Your task to perform on an android device: change the clock style Image 0: 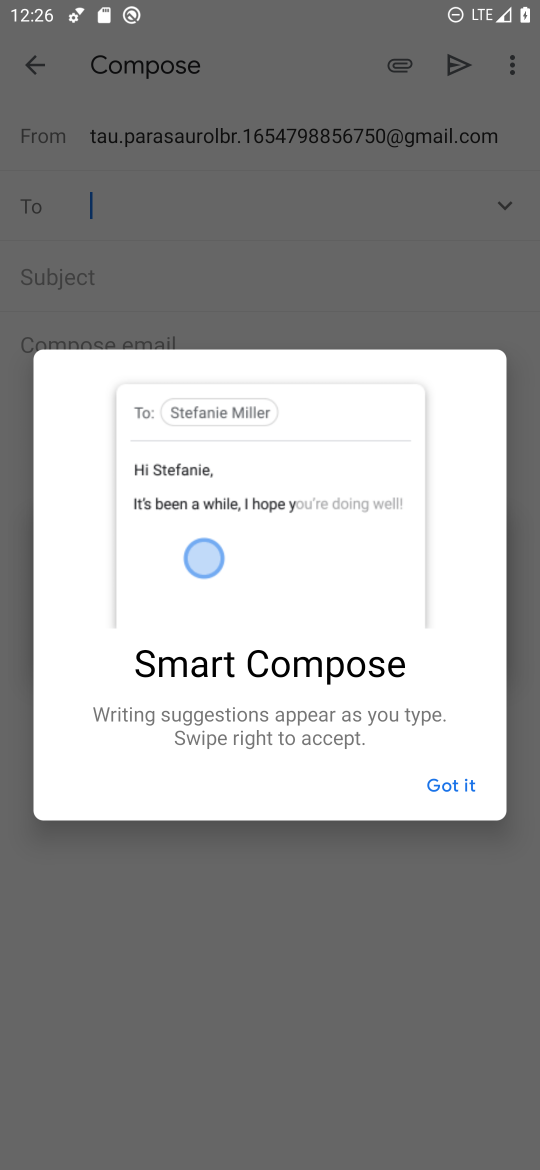
Step 0: press home button
Your task to perform on an android device: change the clock style Image 1: 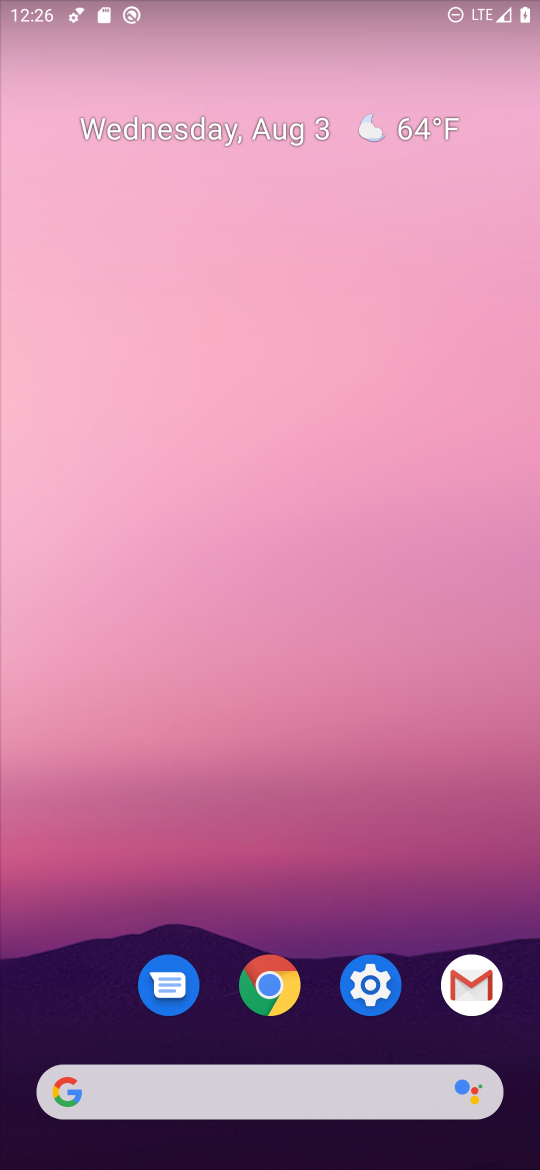
Step 1: drag from (374, 1123) to (245, 235)
Your task to perform on an android device: change the clock style Image 2: 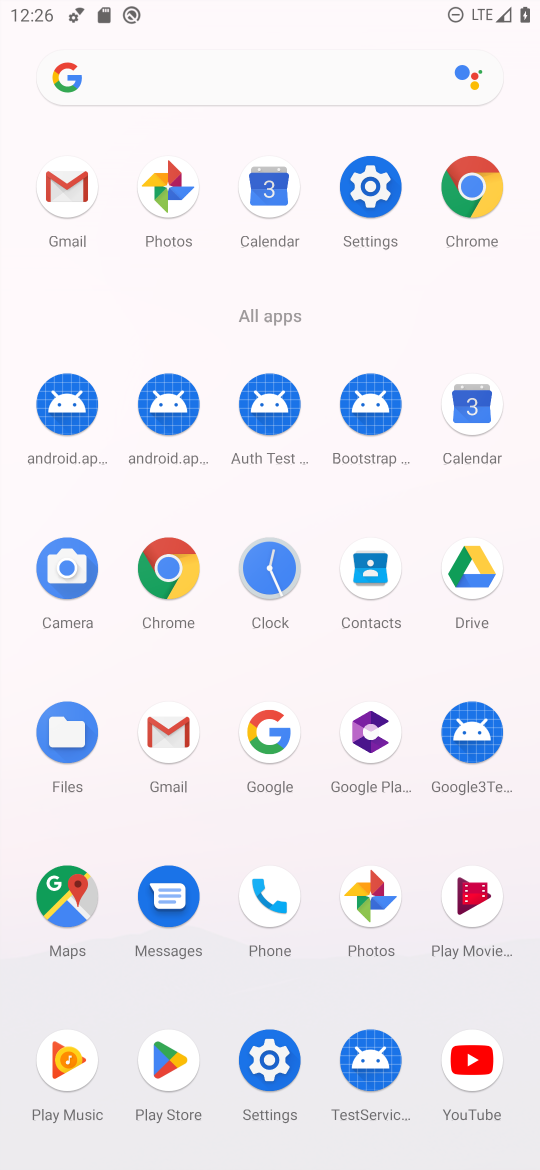
Step 2: click (243, 559)
Your task to perform on an android device: change the clock style Image 3: 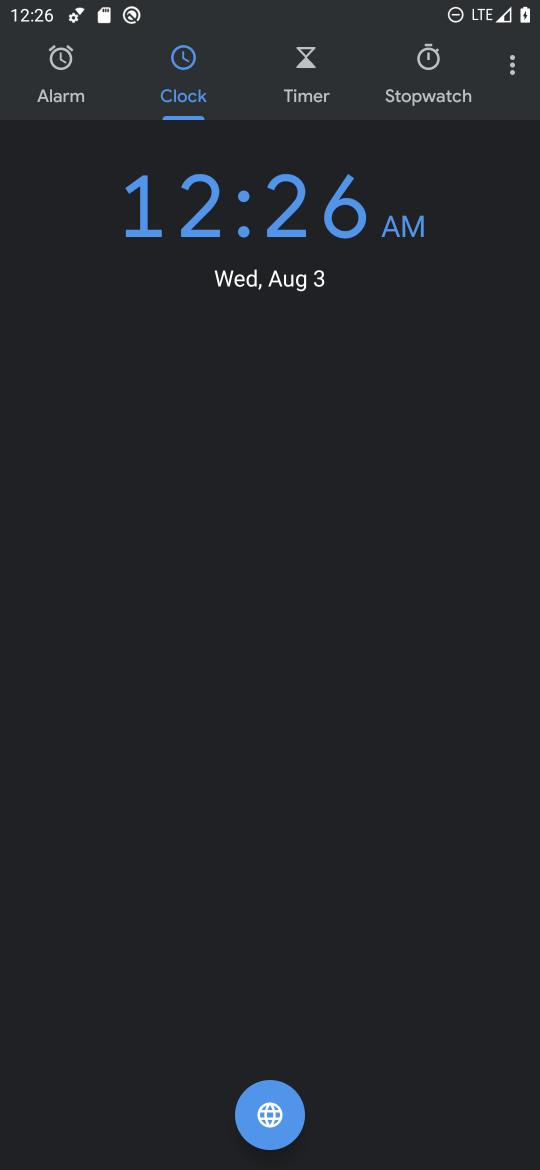
Step 3: click (502, 72)
Your task to perform on an android device: change the clock style Image 4: 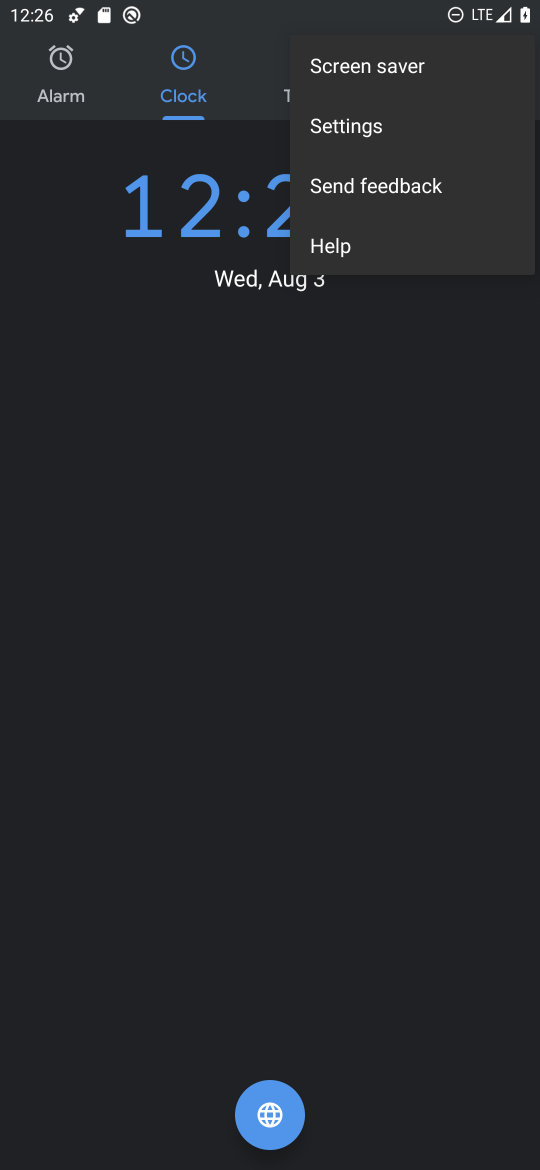
Step 4: click (364, 141)
Your task to perform on an android device: change the clock style Image 5: 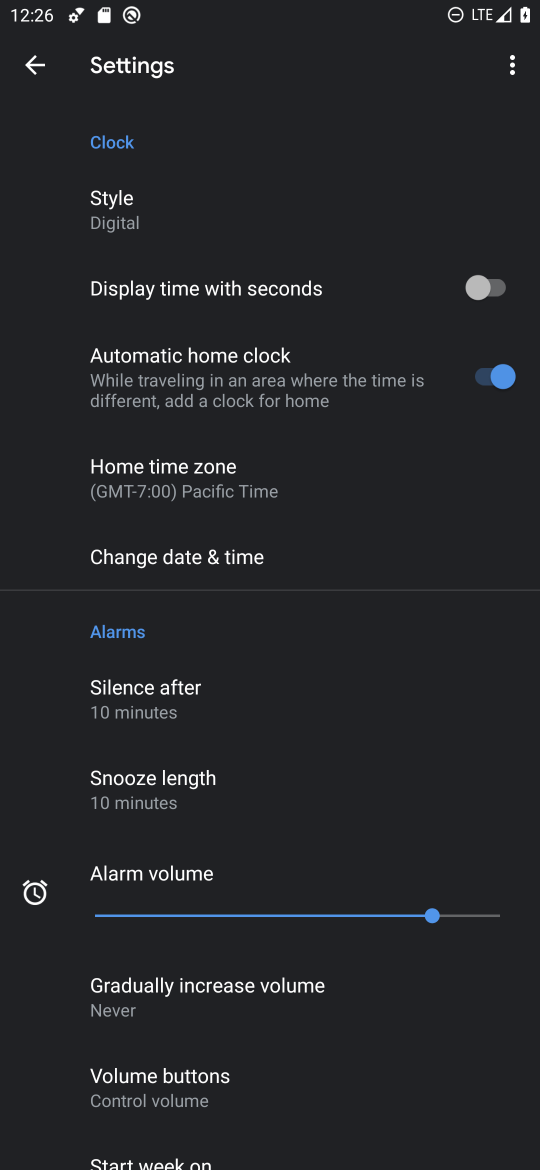
Step 5: click (146, 215)
Your task to perform on an android device: change the clock style Image 6: 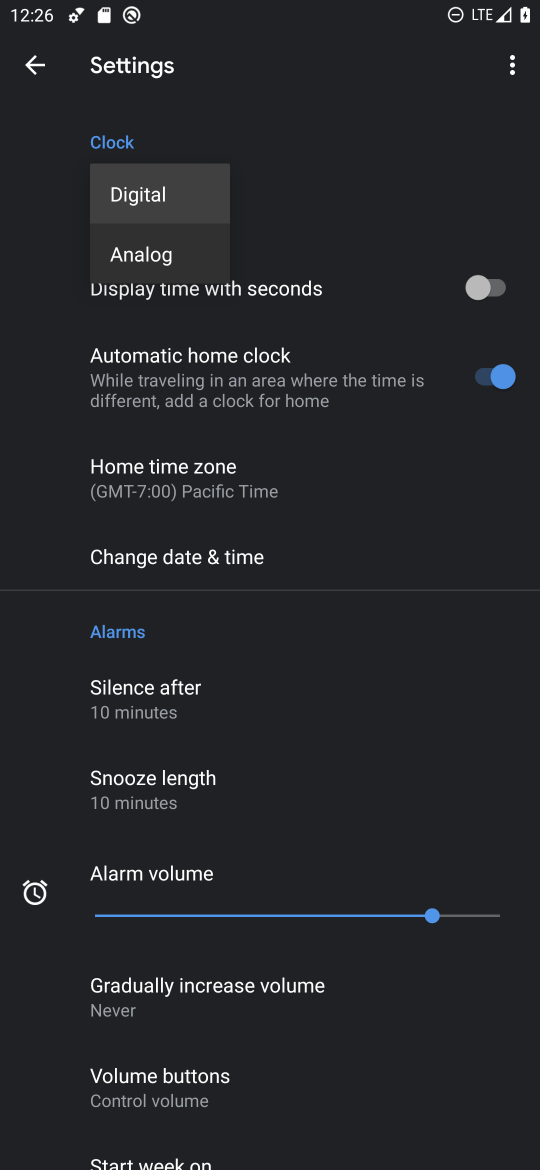
Step 6: click (142, 251)
Your task to perform on an android device: change the clock style Image 7: 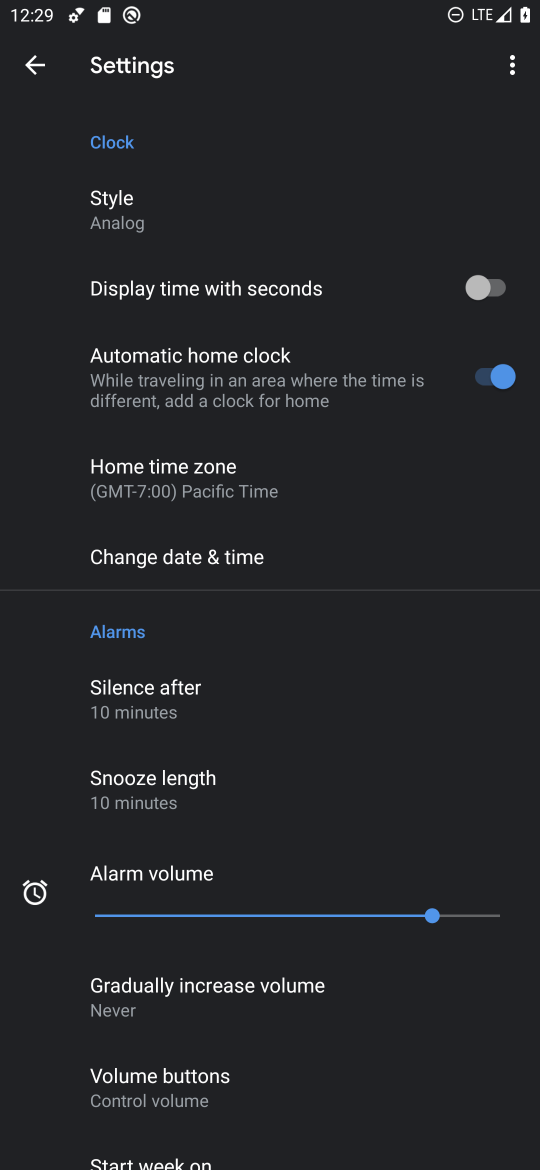
Step 7: task complete